Your task to perform on an android device: Open Google Chrome and click the shortcut for Amazon.com Image 0: 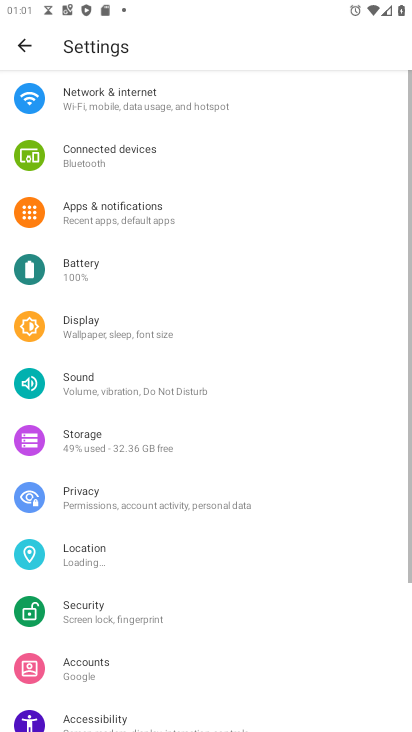
Step 0: press home button
Your task to perform on an android device: Open Google Chrome and click the shortcut for Amazon.com Image 1: 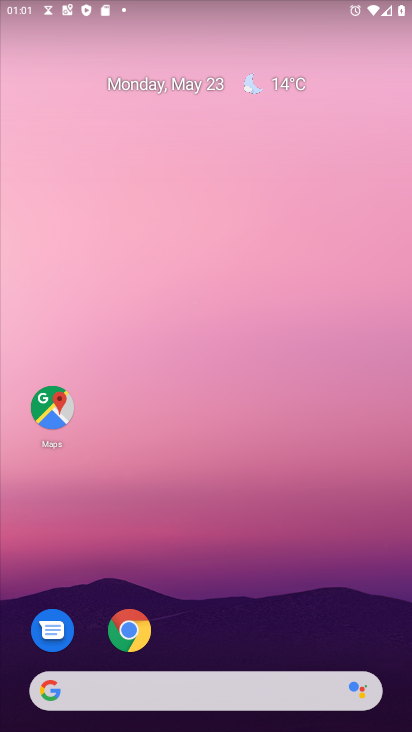
Step 1: drag from (276, 473) to (168, 729)
Your task to perform on an android device: Open Google Chrome and click the shortcut for Amazon.com Image 2: 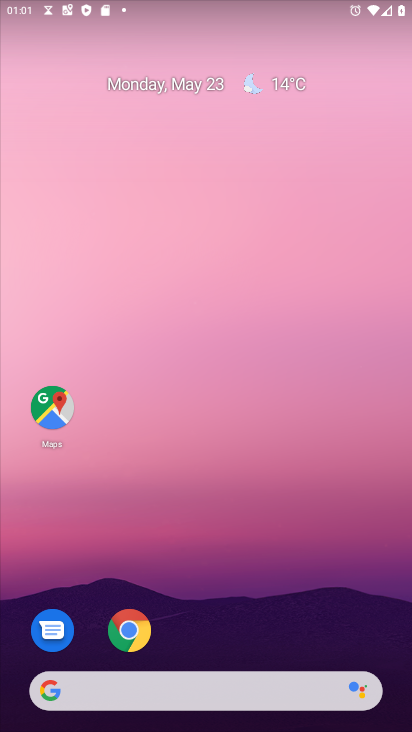
Step 2: click (128, 614)
Your task to perform on an android device: Open Google Chrome and click the shortcut for Amazon.com Image 3: 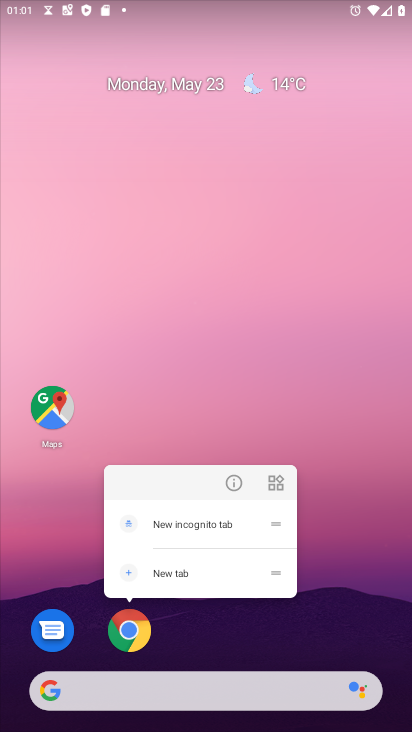
Step 3: click (136, 638)
Your task to perform on an android device: Open Google Chrome and click the shortcut for Amazon.com Image 4: 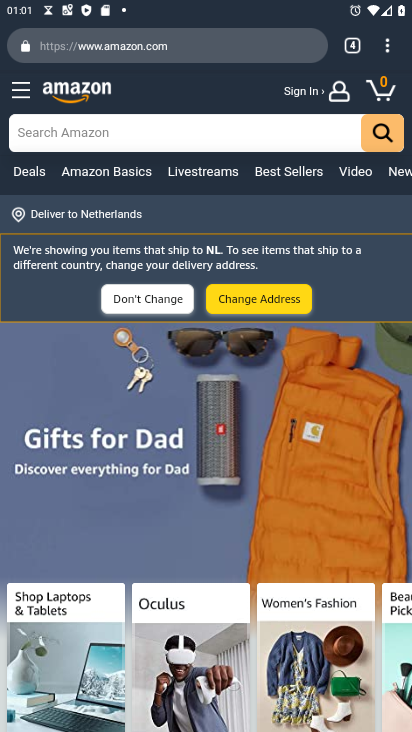
Step 4: task complete